Your task to perform on an android device: toggle priority inbox in the gmail app Image 0: 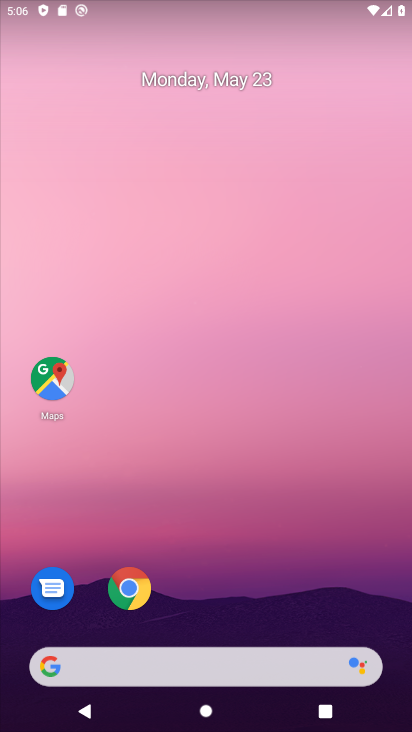
Step 0: drag from (180, 95) to (140, 5)
Your task to perform on an android device: toggle priority inbox in the gmail app Image 1: 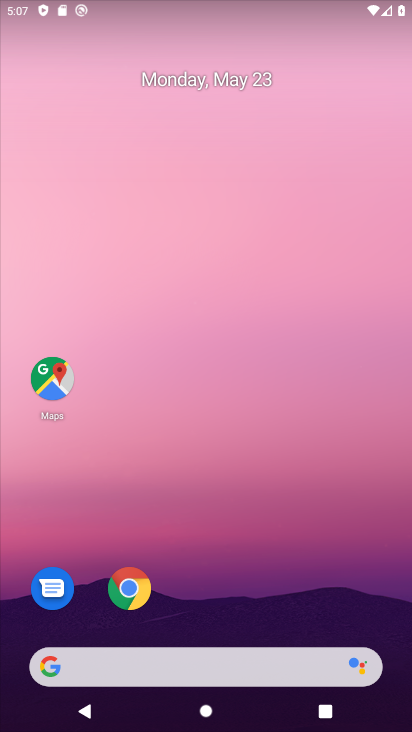
Step 1: drag from (190, 447) to (120, 15)
Your task to perform on an android device: toggle priority inbox in the gmail app Image 2: 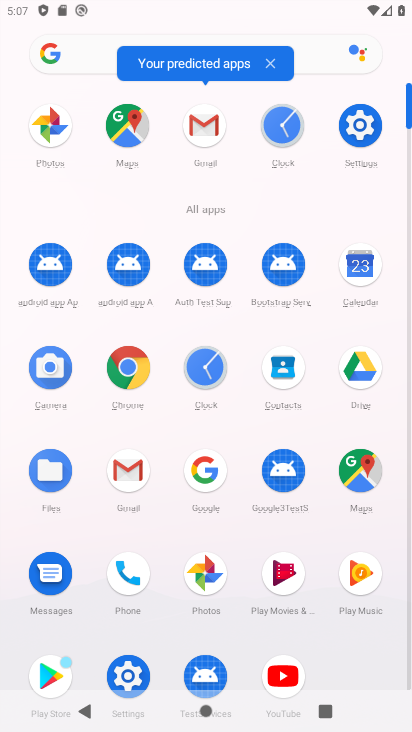
Step 2: drag from (5, 550) to (17, 121)
Your task to perform on an android device: toggle priority inbox in the gmail app Image 3: 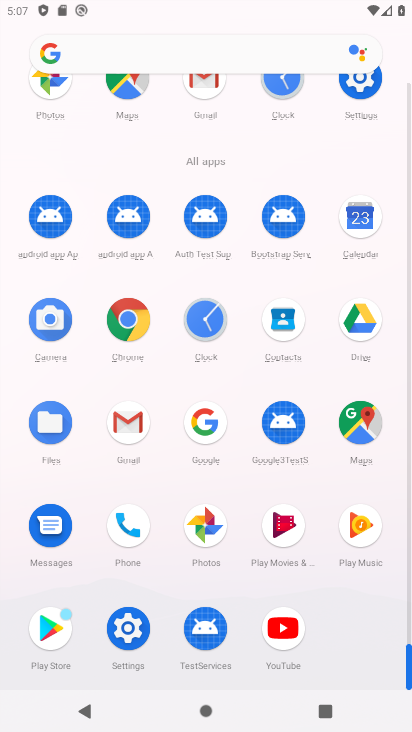
Step 3: click (127, 416)
Your task to perform on an android device: toggle priority inbox in the gmail app Image 4: 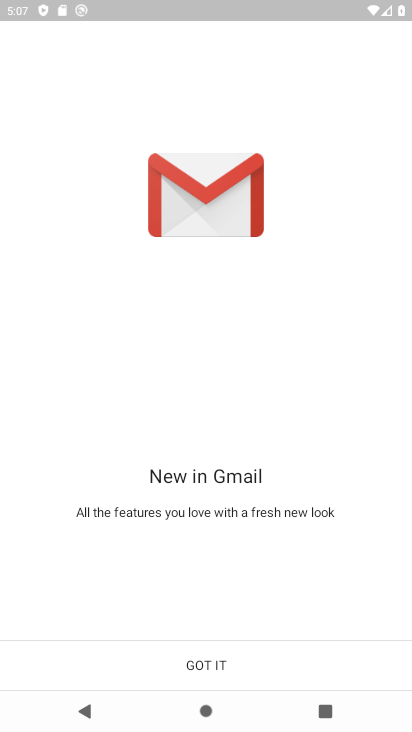
Step 4: click (181, 666)
Your task to perform on an android device: toggle priority inbox in the gmail app Image 5: 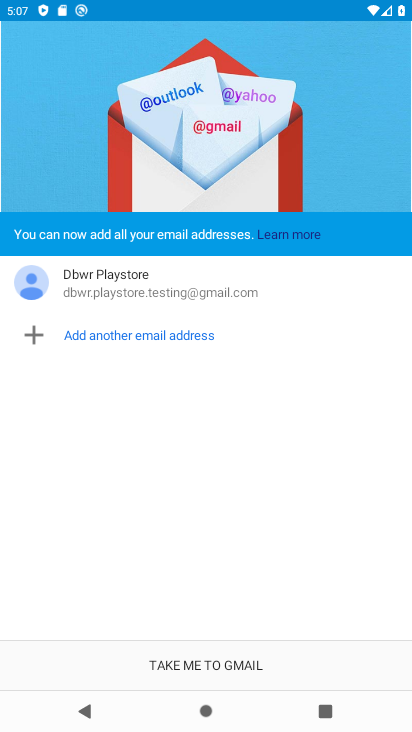
Step 5: click (230, 655)
Your task to perform on an android device: toggle priority inbox in the gmail app Image 6: 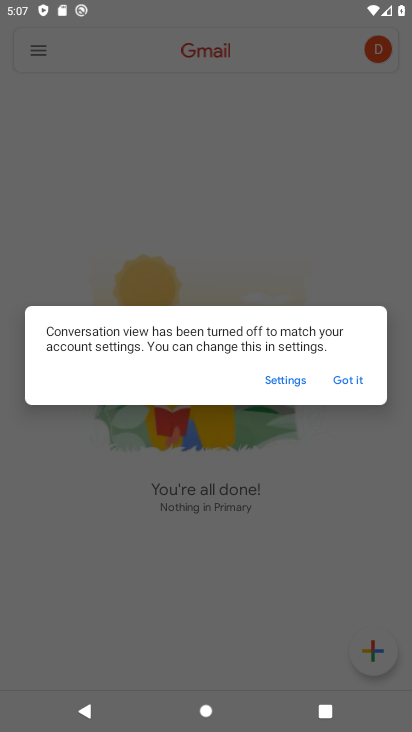
Step 6: click (357, 379)
Your task to perform on an android device: toggle priority inbox in the gmail app Image 7: 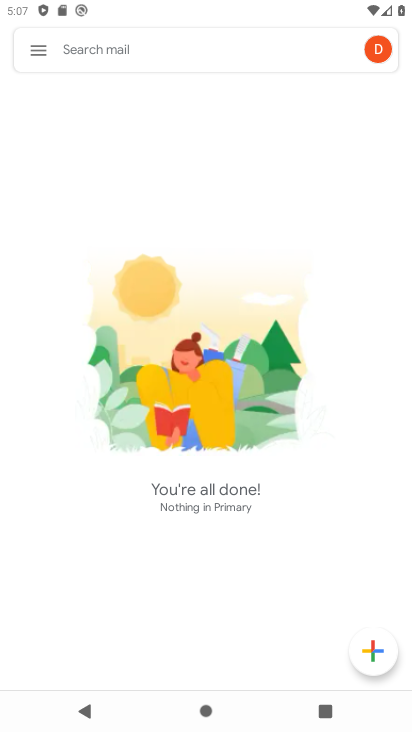
Step 7: click (33, 44)
Your task to perform on an android device: toggle priority inbox in the gmail app Image 8: 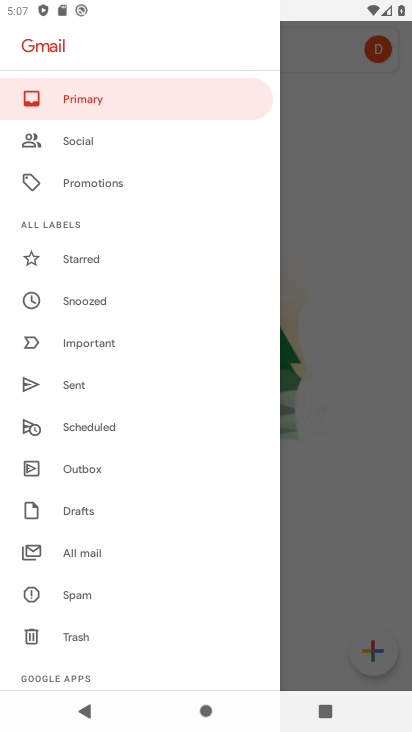
Step 8: drag from (156, 403) to (169, 180)
Your task to perform on an android device: toggle priority inbox in the gmail app Image 9: 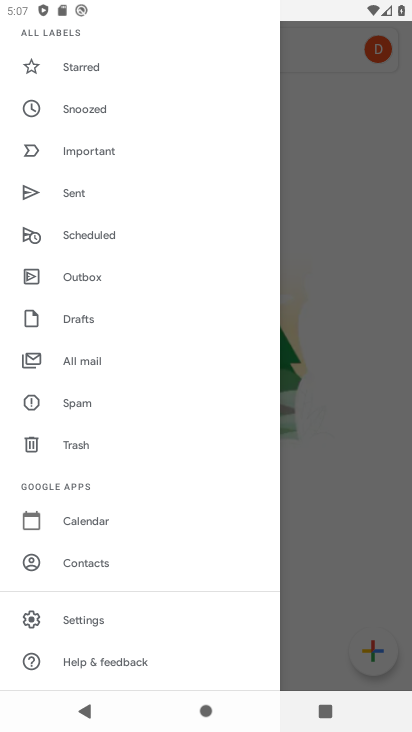
Step 9: click (73, 621)
Your task to perform on an android device: toggle priority inbox in the gmail app Image 10: 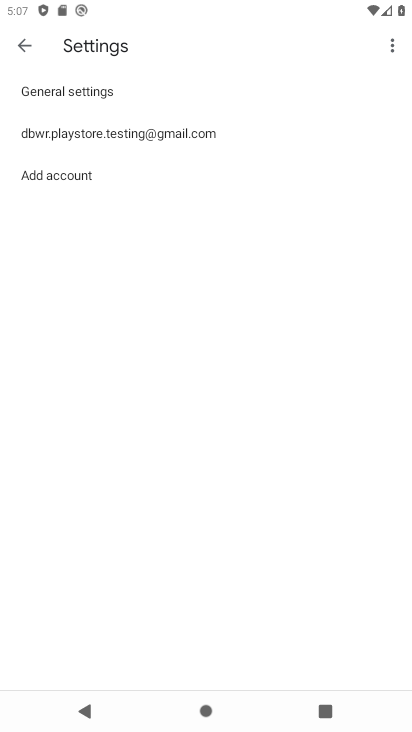
Step 10: click (149, 126)
Your task to perform on an android device: toggle priority inbox in the gmail app Image 11: 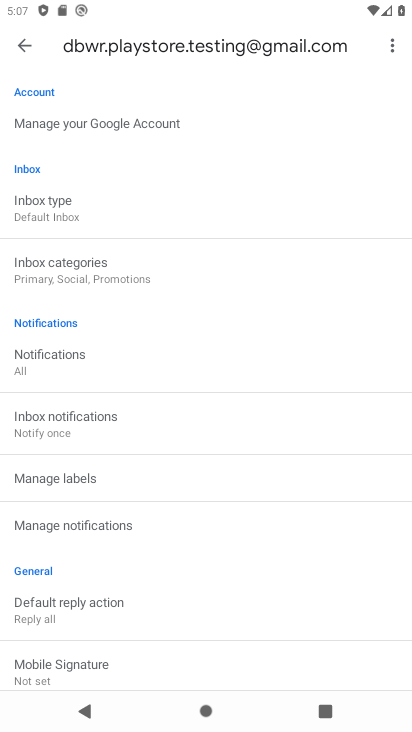
Step 11: click (98, 207)
Your task to perform on an android device: toggle priority inbox in the gmail app Image 12: 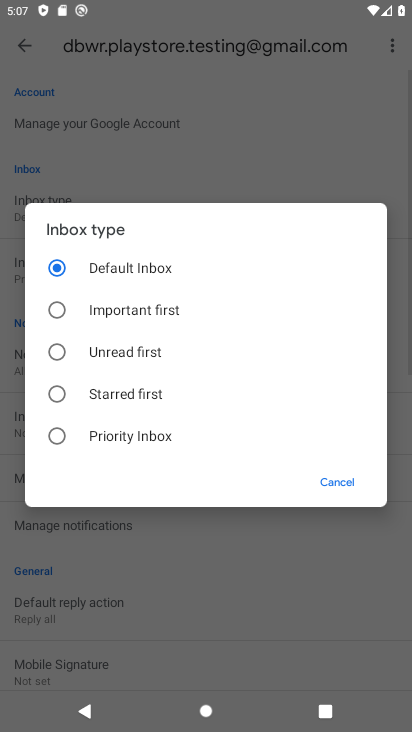
Step 12: click (137, 442)
Your task to perform on an android device: toggle priority inbox in the gmail app Image 13: 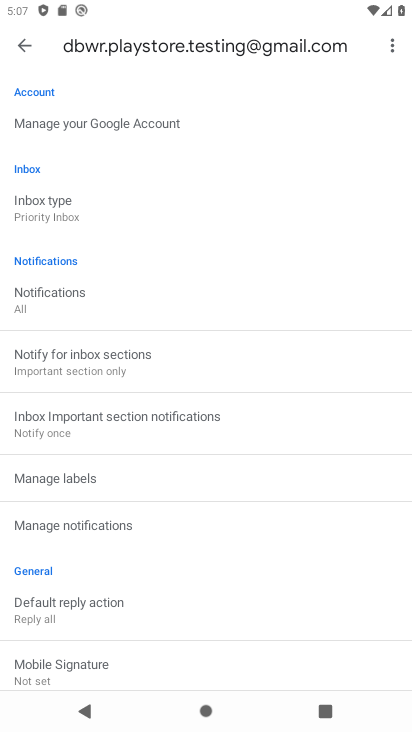
Step 13: task complete